Your task to perform on an android device: turn smart compose on in the gmail app Image 0: 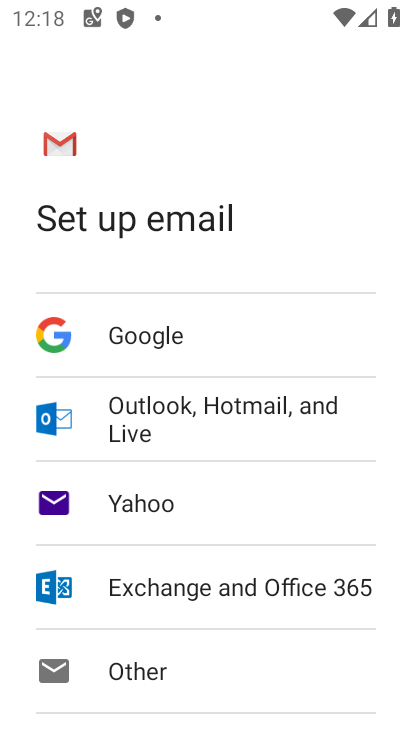
Step 0: press home button
Your task to perform on an android device: turn smart compose on in the gmail app Image 1: 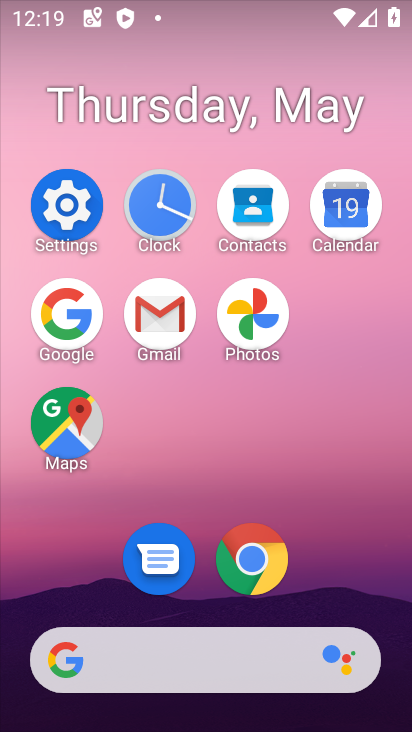
Step 1: click (178, 313)
Your task to perform on an android device: turn smart compose on in the gmail app Image 2: 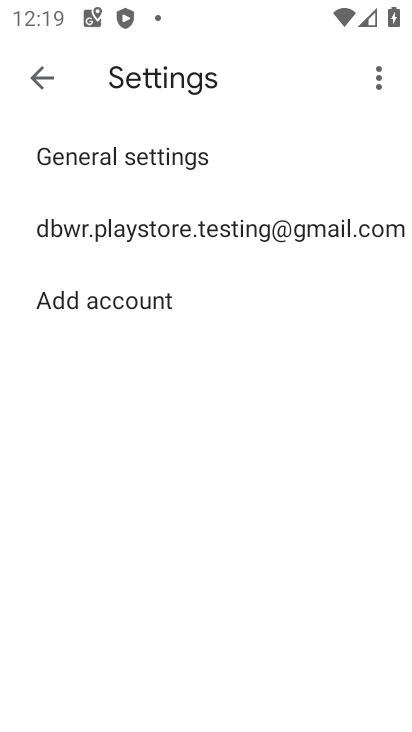
Step 2: click (248, 232)
Your task to perform on an android device: turn smart compose on in the gmail app Image 3: 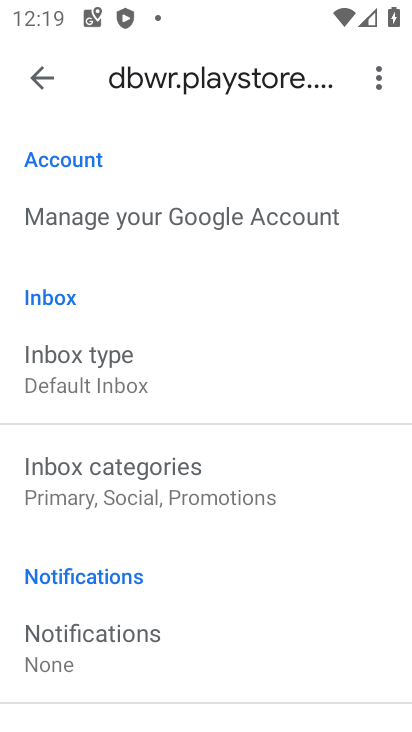
Step 3: drag from (213, 554) to (220, 182)
Your task to perform on an android device: turn smart compose on in the gmail app Image 4: 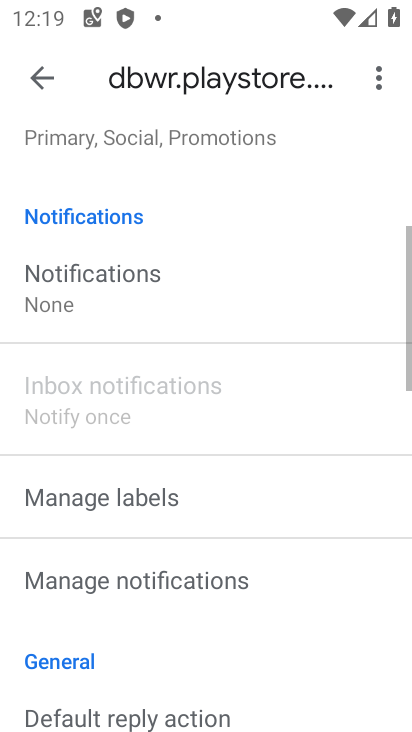
Step 4: drag from (199, 558) to (240, 146)
Your task to perform on an android device: turn smart compose on in the gmail app Image 5: 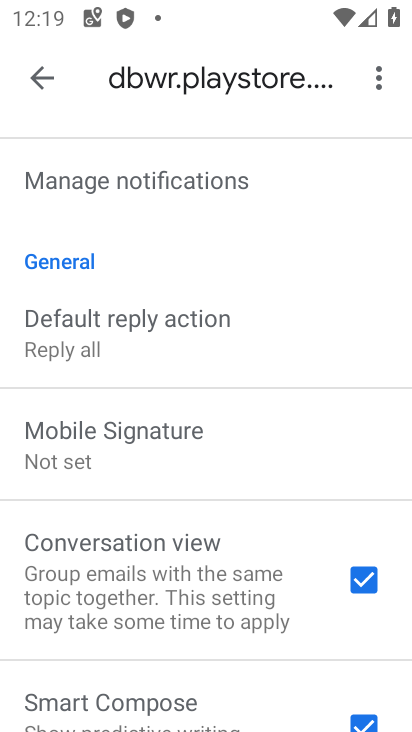
Step 5: drag from (233, 474) to (263, 171)
Your task to perform on an android device: turn smart compose on in the gmail app Image 6: 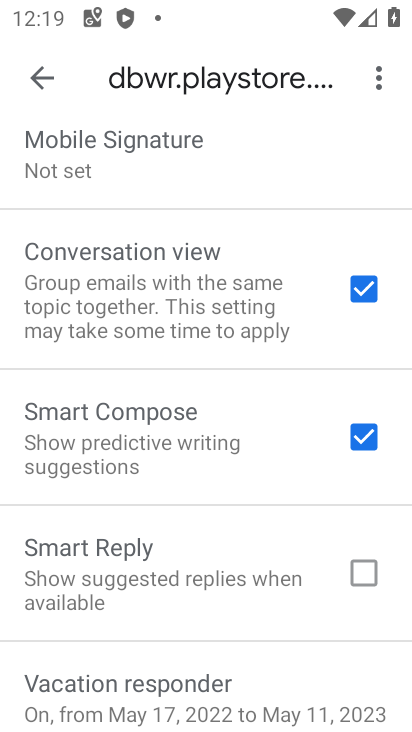
Step 6: click (362, 568)
Your task to perform on an android device: turn smart compose on in the gmail app Image 7: 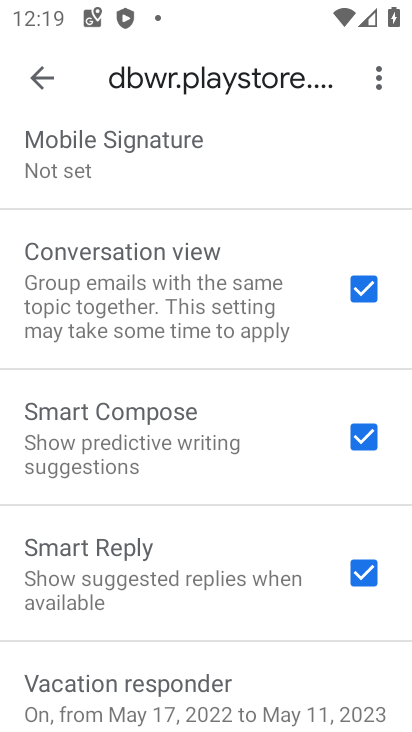
Step 7: task complete